Your task to perform on an android device: read, delete, or share a saved page in the chrome app Image 0: 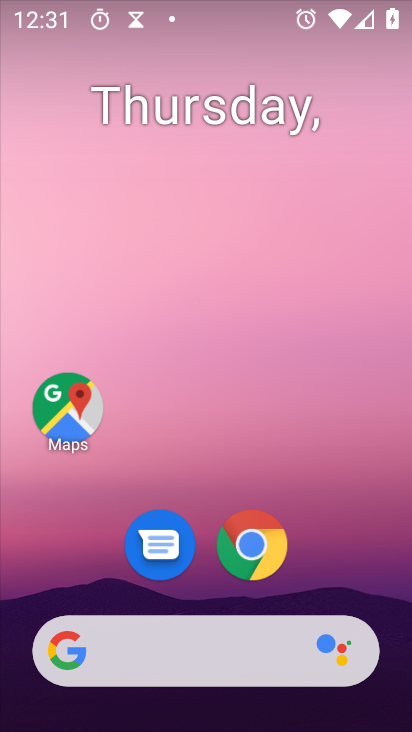
Step 0: press home button
Your task to perform on an android device: read, delete, or share a saved page in the chrome app Image 1: 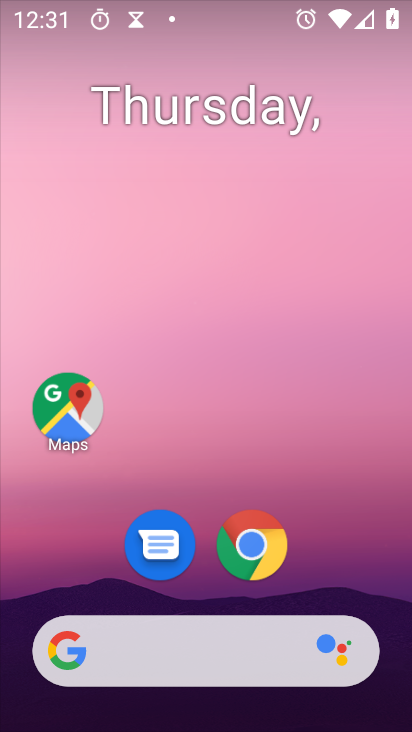
Step 1: click (265, 547)
Your task to perform on an android device: read, delete, or share a saved page in the chrome app Image 2: 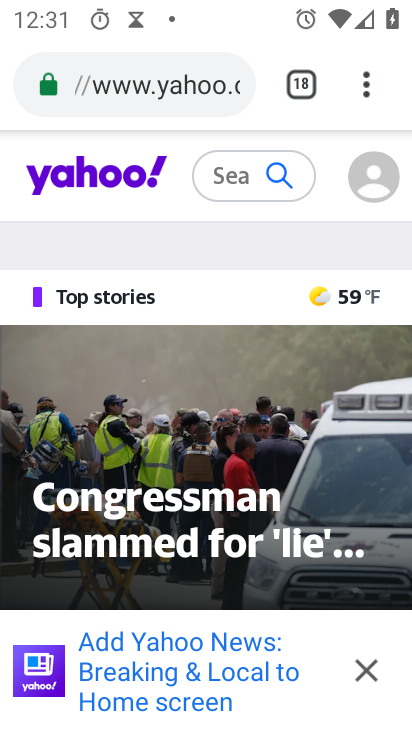
Step 2: drag from (368, 97) to (138, 551)
Your task to perform on an android device: read, delete, or share a saved page in the chrome app Image 3: 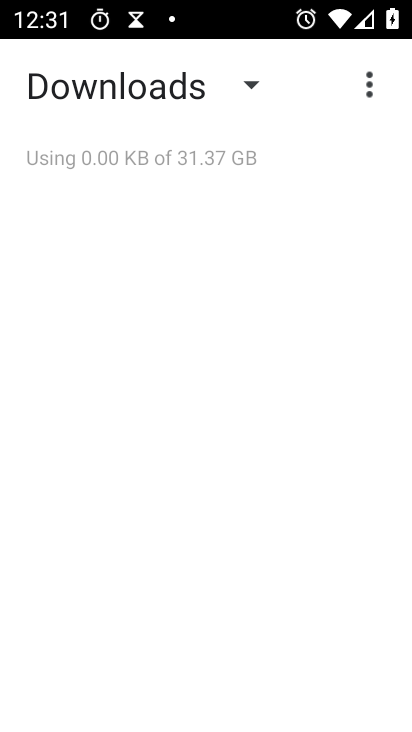
Step 3: click (199, 86)
Your task to perform on an android device: read, delete, or share a saved page in the chrome app Image 4: 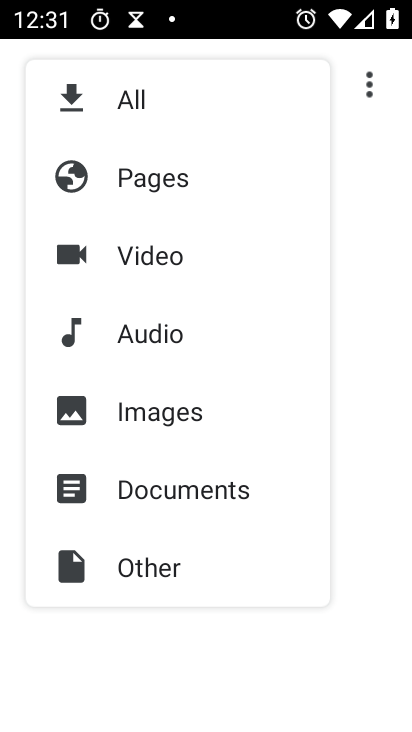
Step 4: click (162, 173)
Your task to perform on an android device: read, delete, or share a saved page in the chrome app Image 5: 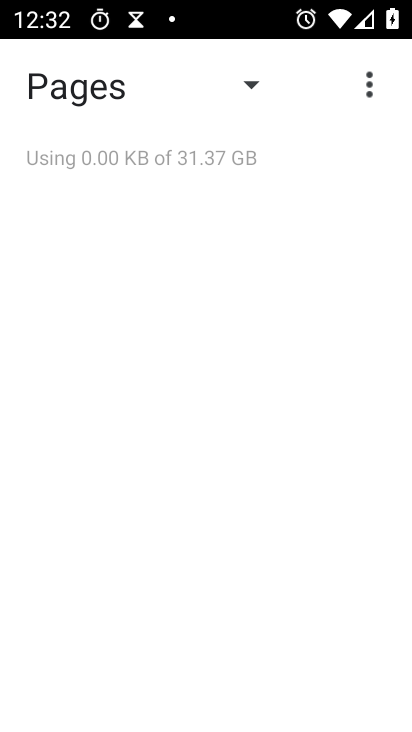
Step 5: task complete